Your task to perform on an android device: Open the phone app and click the voicemail tab. Image 0: 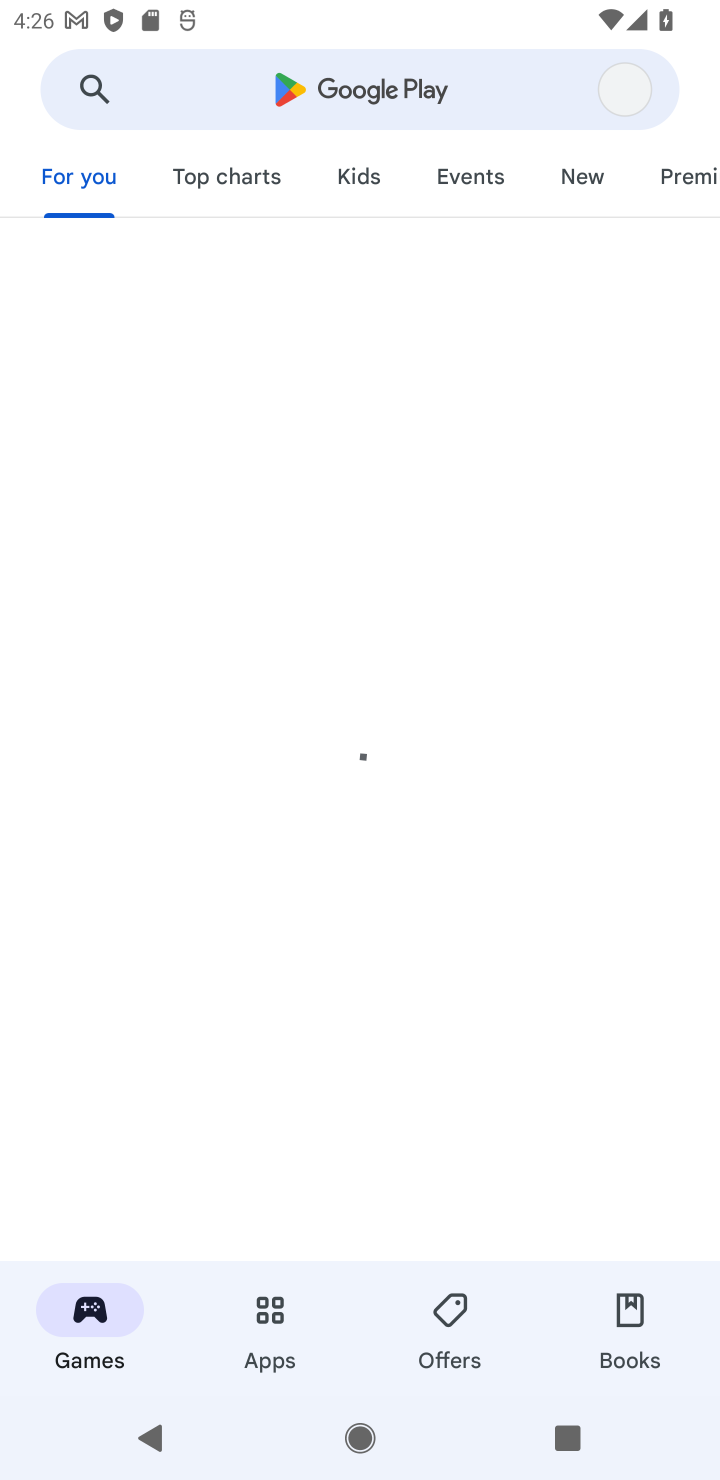
Step 0: press home button
Your task to perform on an android device: Open the phone app and click the voicemail tab. Image 1: 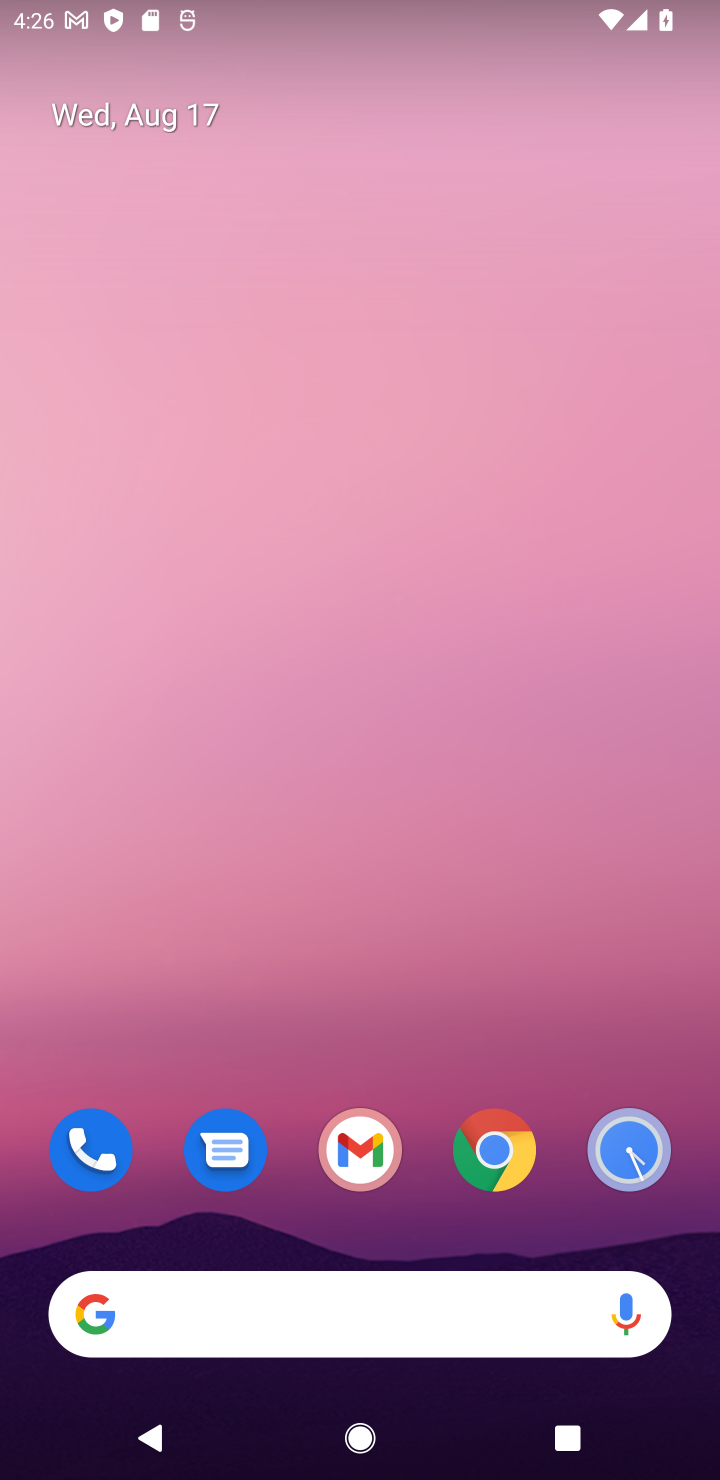
Step 1: drag from (560, 1129) to (300, 47)
Your task to perform on an android device: Open the phone app and click the voicemail tab. Image 2: 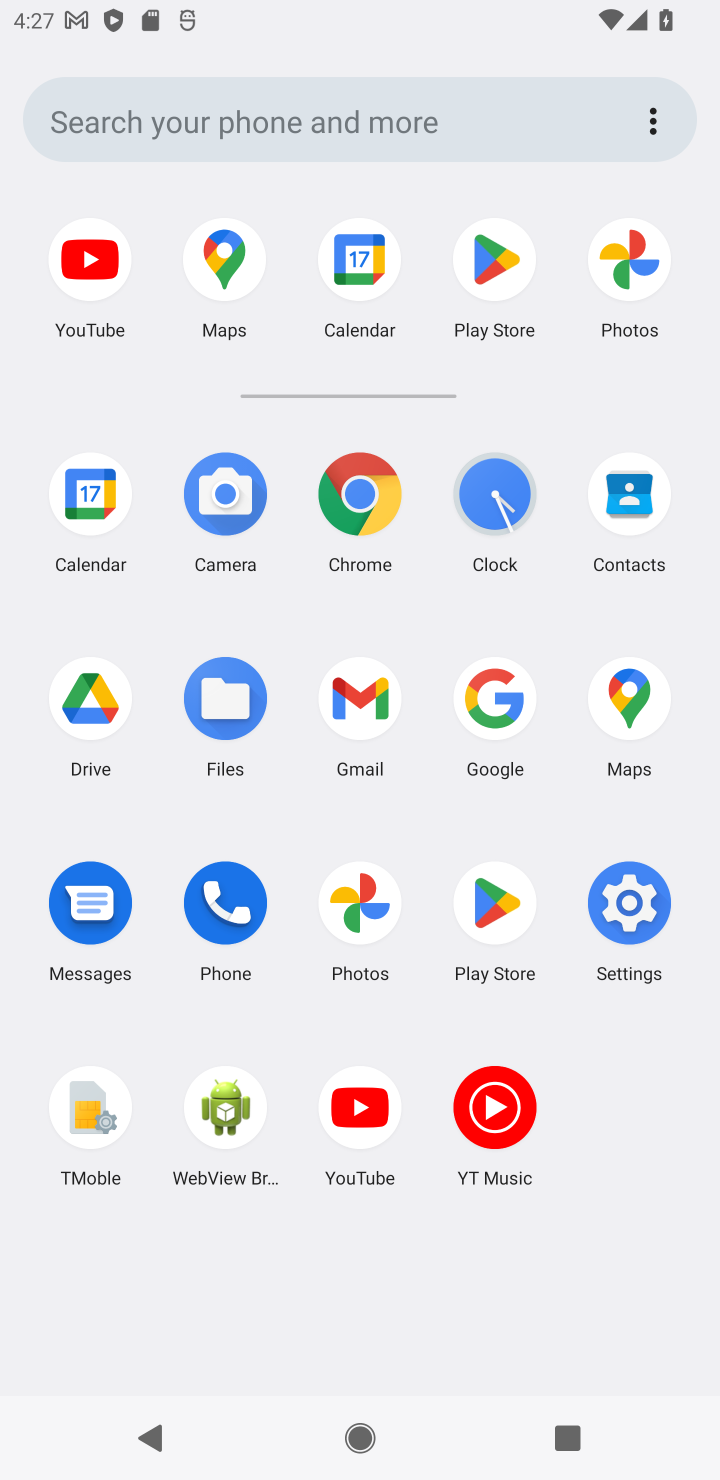
Step 2: click (203, 880)
Your task to perform on an android device: Open the phone app and click the voicemail tab. Image 3: 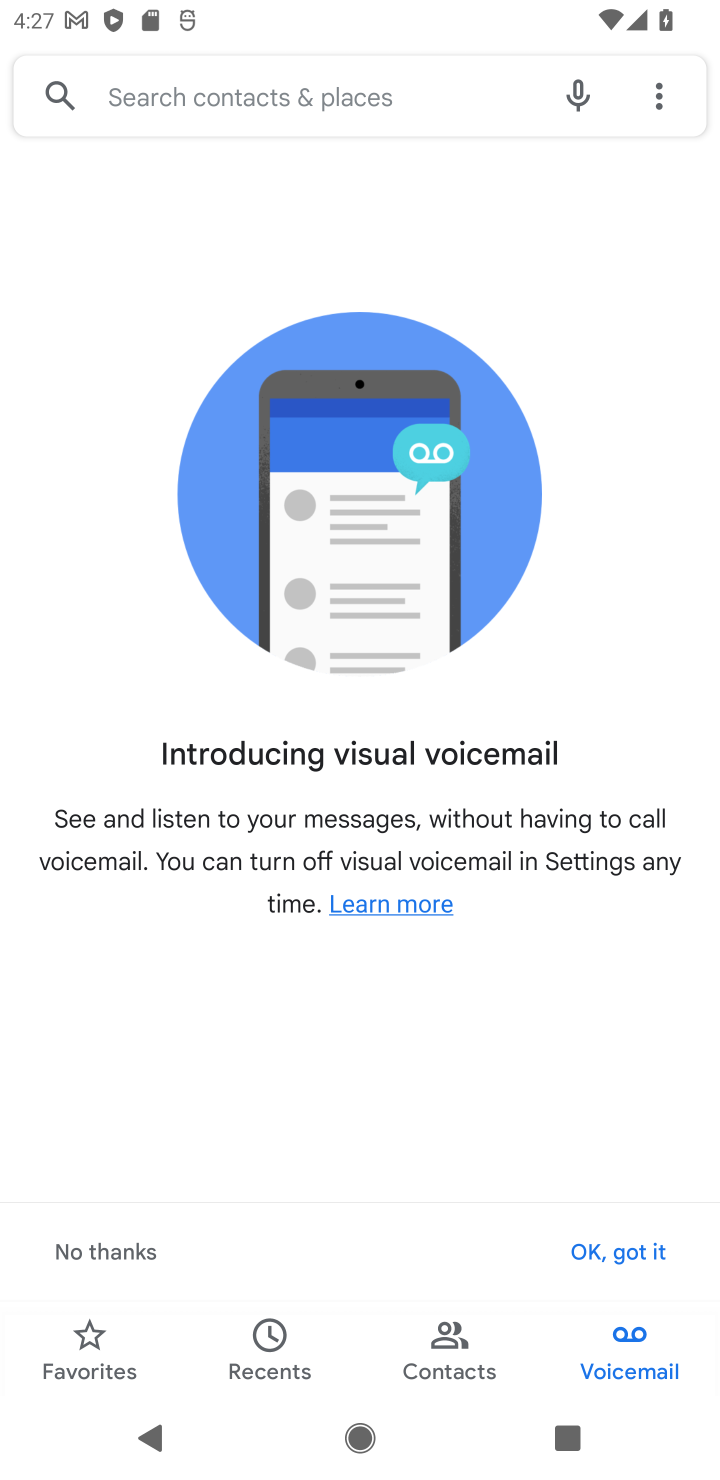
Step 3: task complete